Your task to perform on an android device: Open display settings Image 0: 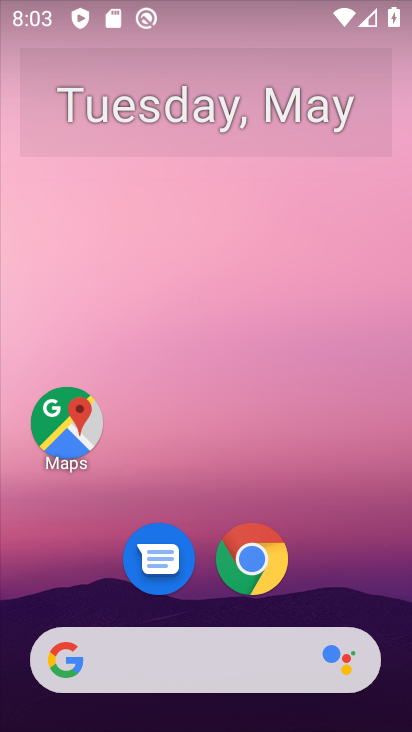
Step 0: drag from (171, 594) to (283, 33)
Your task to perform on an android device: Open display settings Image 1: 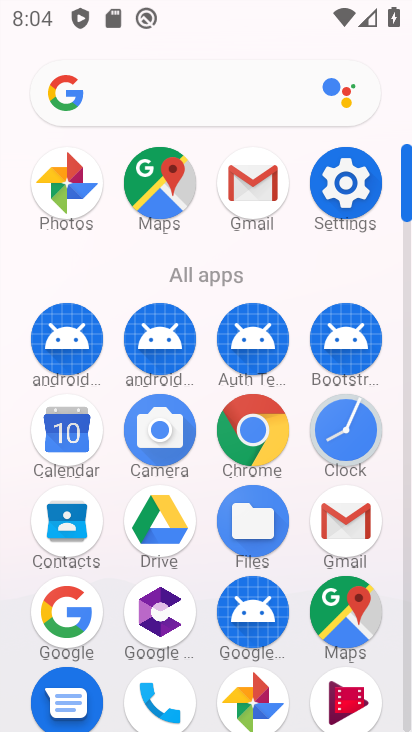
Step 1: click (346, 196)
Your task to perform on an android device: Open display settings Image 2: 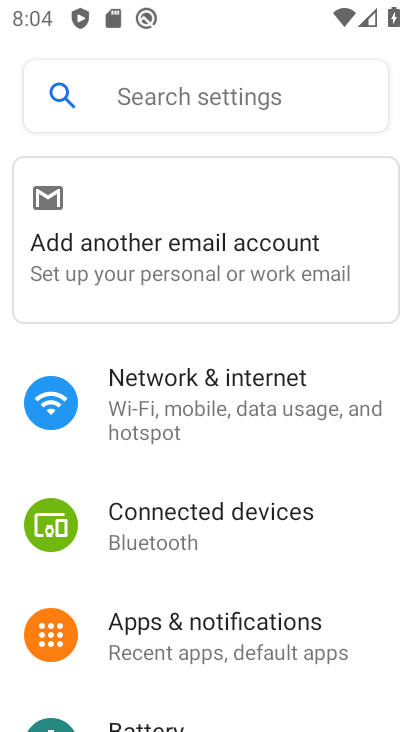
Step 2: drag from (188, 649) to (296, 274)
Your task to perform on an android device: Open display settings Image 3: 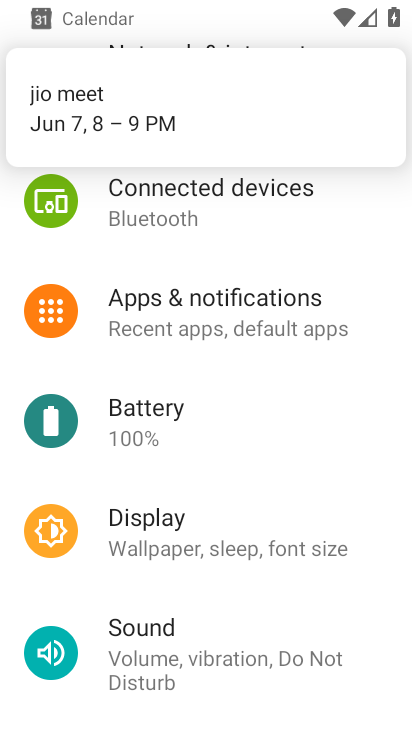
Step 3: click (175, 536)
Your task to perform on an android device: Open display settings Image 4: 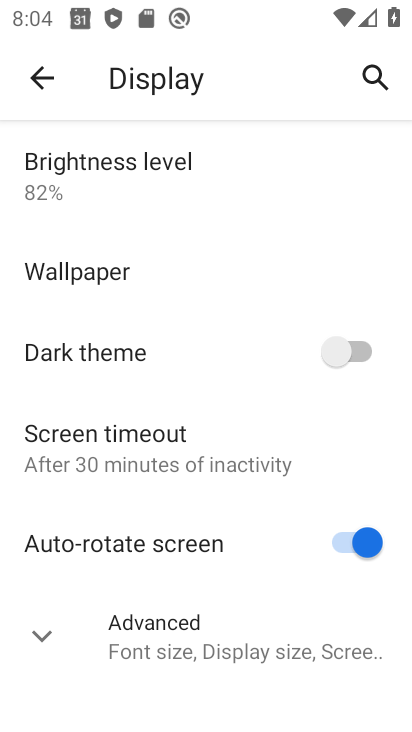
Step 4: task complete